Your task to perform on an android device: Open Chrome and go to the settings page Image 0: 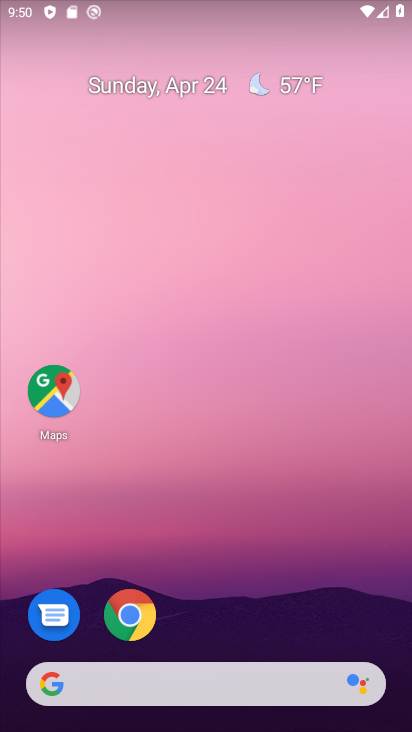
Step 0: click (127, 613)
Your task to perform on an android device: Open Chrome and go to the settings page Image 1: 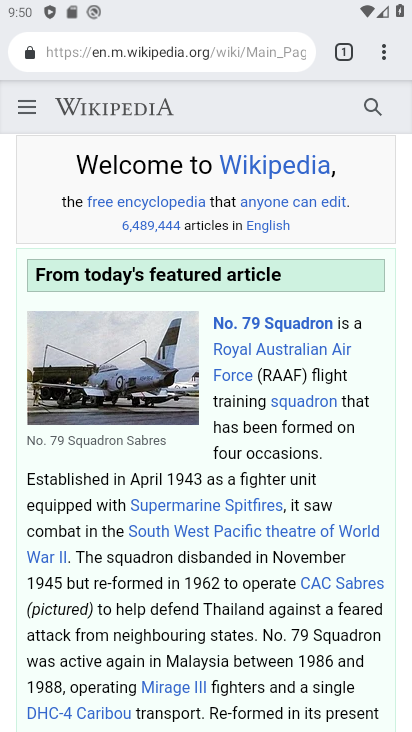
Step 1: click (386, 59)
Your task to perform on an android device: Open Chrome and go to the settings page Image 2: 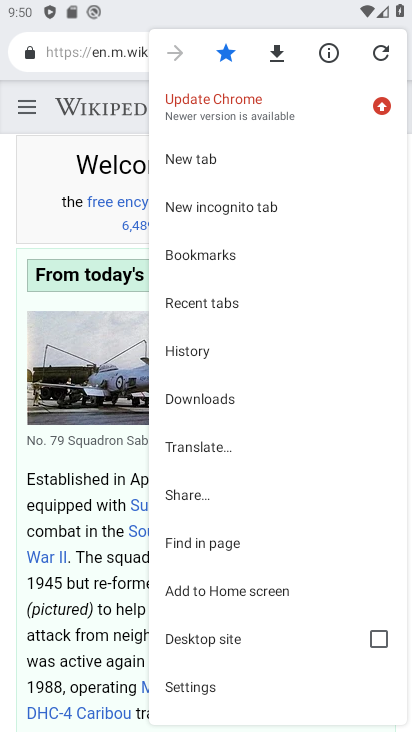
Step 2: click (184, 685)
Your task to perform on an android device: Open Chrome and go to the settings page Image 3: 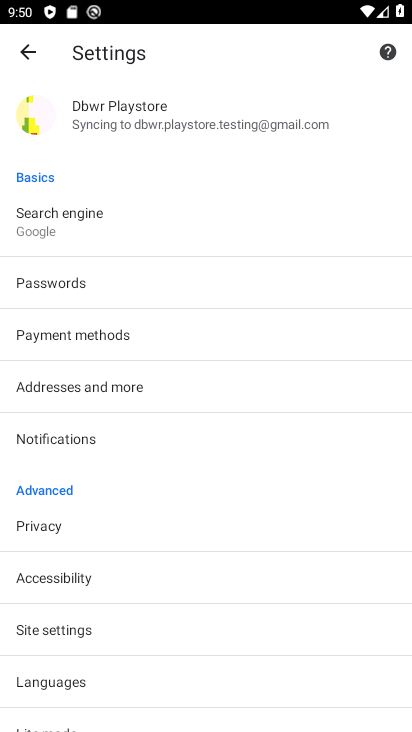
Step 3: task complete